Your task to perform on an android device: Open my contact list Image 0: 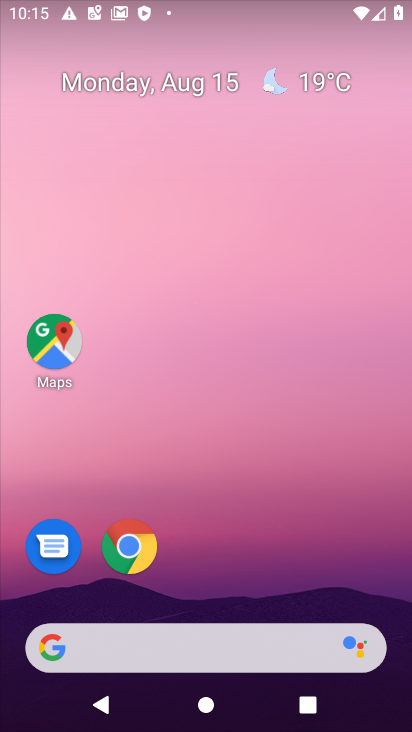
Step 0: click (260, 123)
Your task to perform on an android device: Open my contact list Image 1: 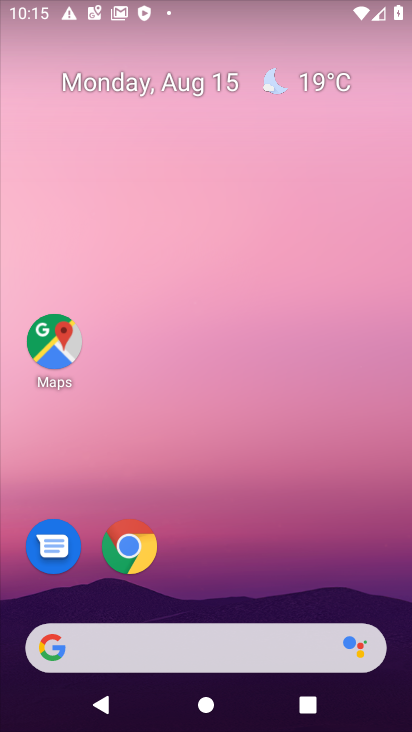
Step 1: drag from (205, 606) to (210, 20)
Your task to perform on an android device: Open my contact list Image 2: 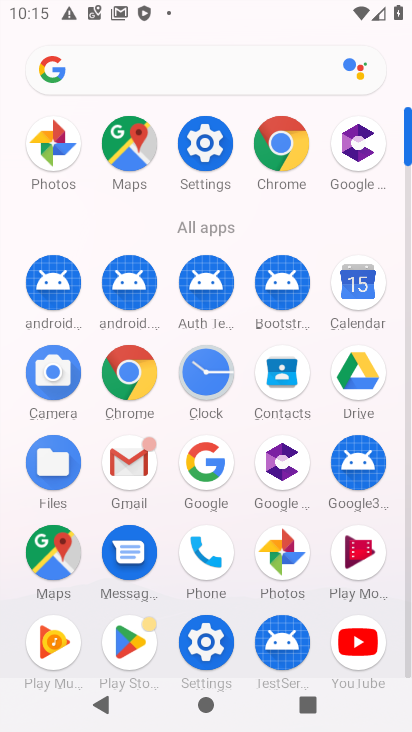
Step 2: click (281, 377)
Your task to perform on an android device: Open my contact list Image 3: 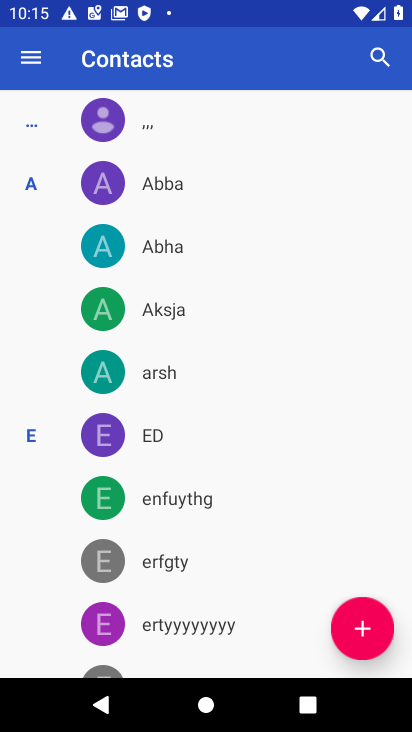
Step 3: task complete